Your task to perform on an android device: Go to Google Image 0: 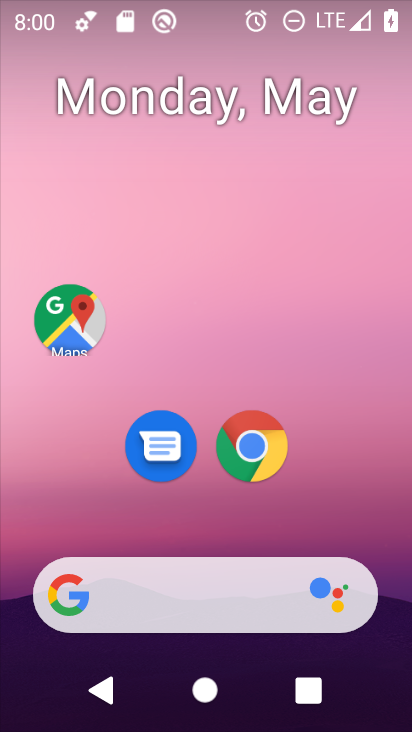
Step 0: click (70, 605)
Your task to perform on an android device: Go to Google Image 1: 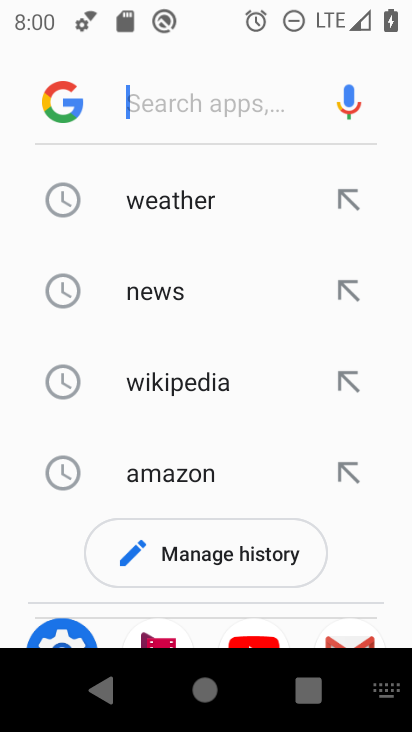
Step 1: click (68, 107)
Your task to perform on an android device: Go to Google Image 2: 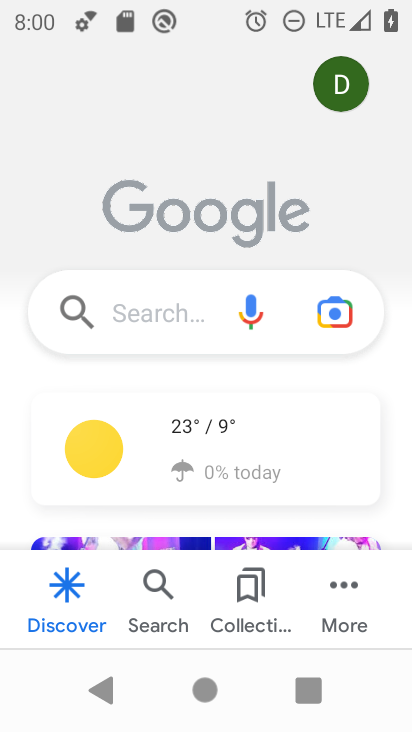
Step 2: task complete